Your task to perform on an android device: Search for Mexican restaurants on Maps Image 0: 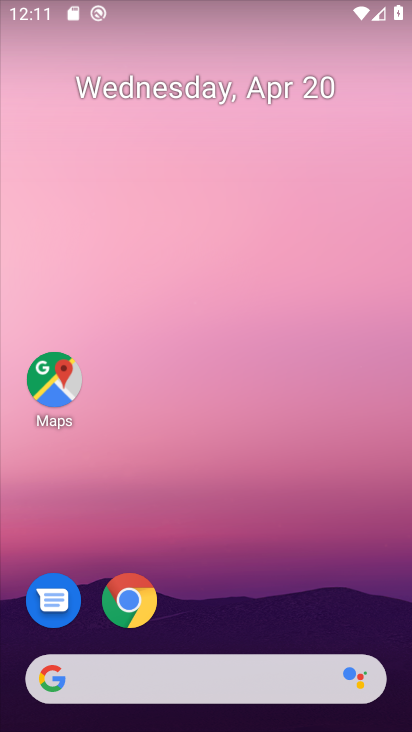
Step 0: drag from (323, 559) to (288, 67)
Your task to perform on an android device: Search for Mexican restaurants on Maps Image 1: 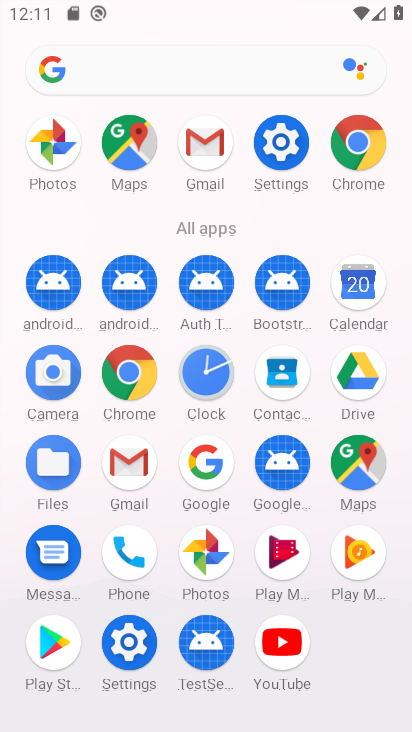
Step 1: click (356, 488)
Your task to perform on an android device: Search for Mexican restaurants on Maps Image 2: 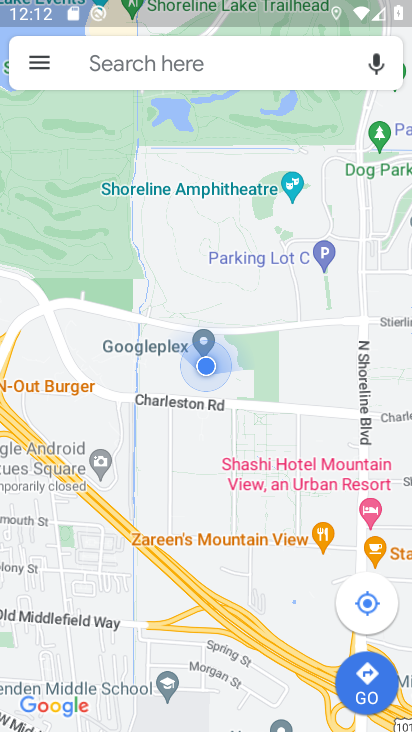
Step 2: click (143, 61)
Your task to perform on an android device: Search for Mexican restaurants on Maps Image 3: 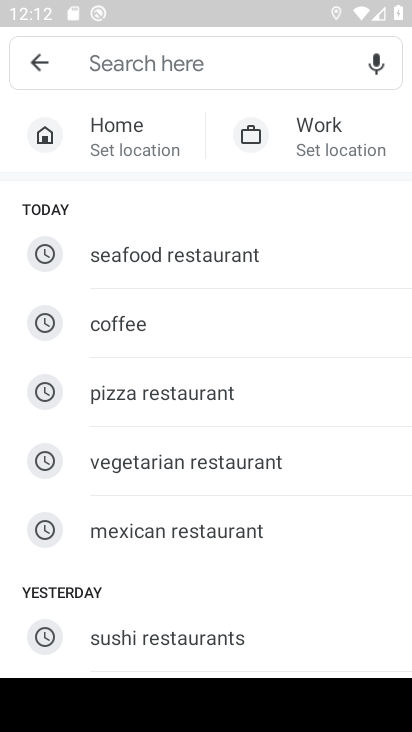
Step 3: type "mexican restaurants "
Your task to perform on an android device: Search for Mexican restaurants on Maps Image 4: 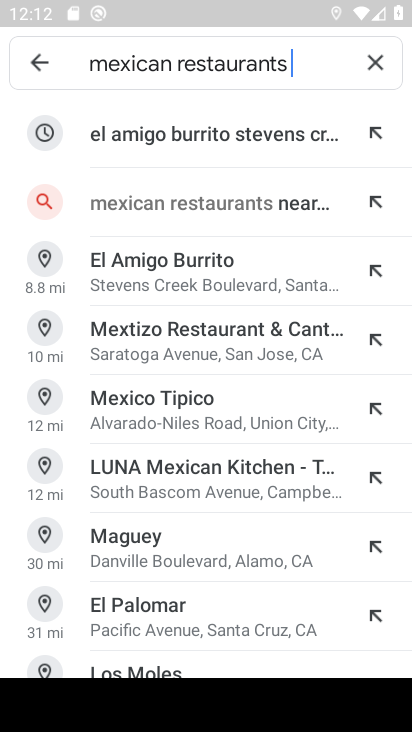
Step 4: click (143, 209)
Your task to perform on an android device: Search for Mexican restaurants on Maps Image 5: 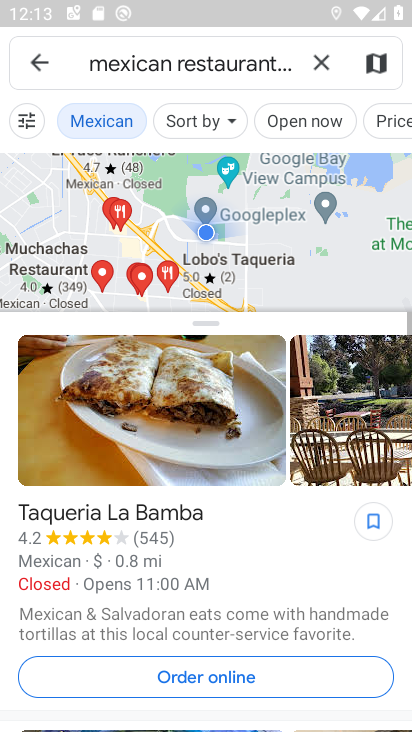
Step 5: task complete